Your task to perform on an android device: Open Android settings Image 0: 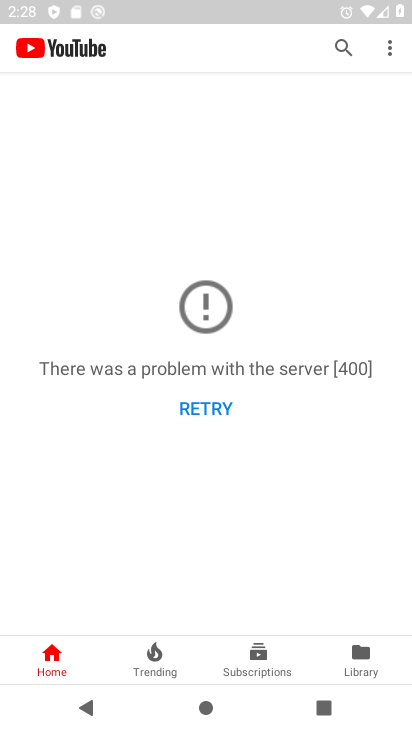
Step 0: press home button
Your task to perform on an android device: Open Android settings Image 1: 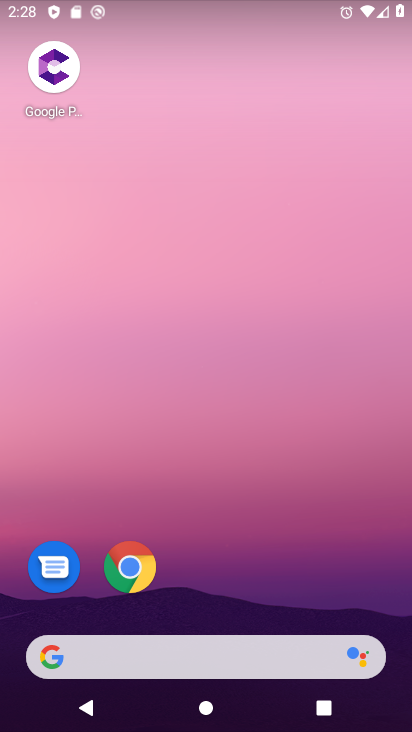
Step 1: drag from (284, 550) to (329, 6)
Your task to perform on an android device: Open Android settings Image 2: 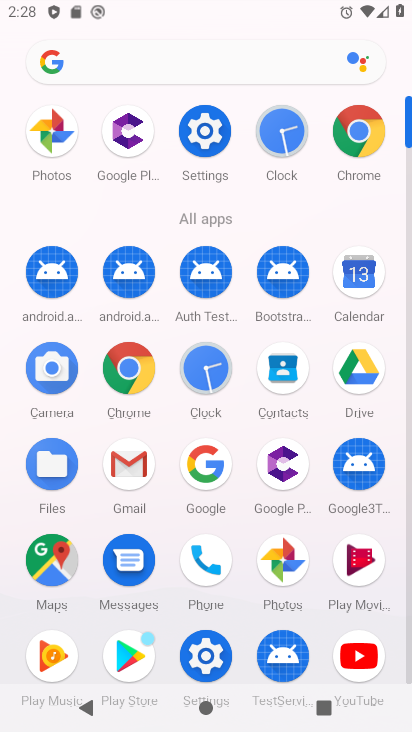
Step 2: click (204, 153)
Your task to perform on an android device: Open Android settings Image 3: 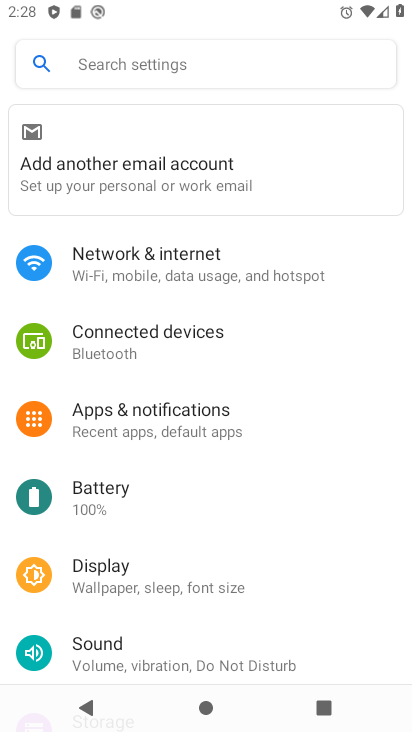
Step 3: drag from (183, 582) to (273, 157)
Your task to perform on an android device: Open Android settings Image 4: 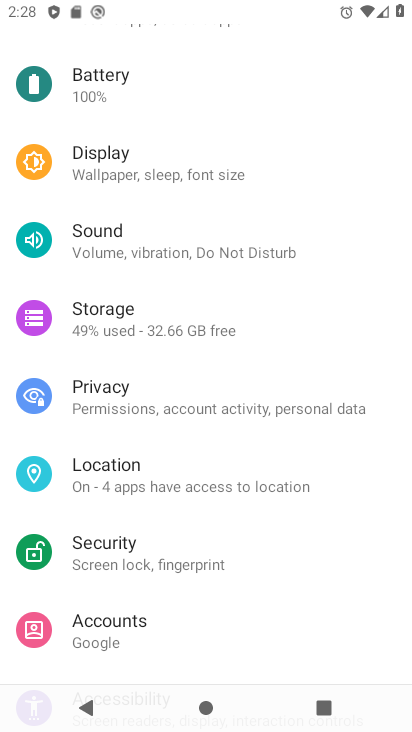
Step 4: drag from (208, 531) to (245, 310)
Your task to perform on an android device: Open Android settings Image 5: 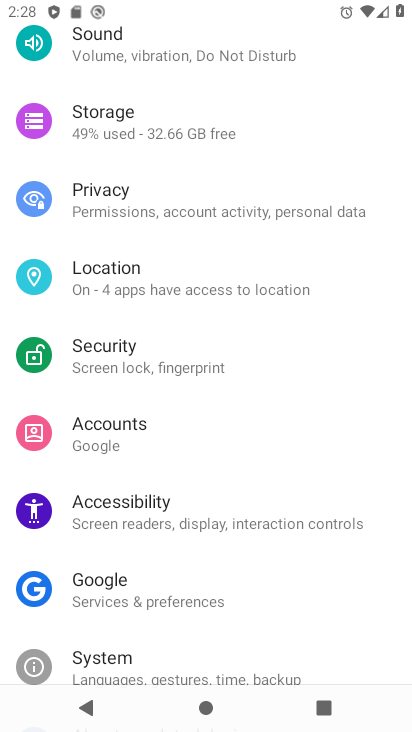
Step 5: drag from (176, 645) to (245, 238)
Your task to perform on an android device: Open Android settings Image 6: 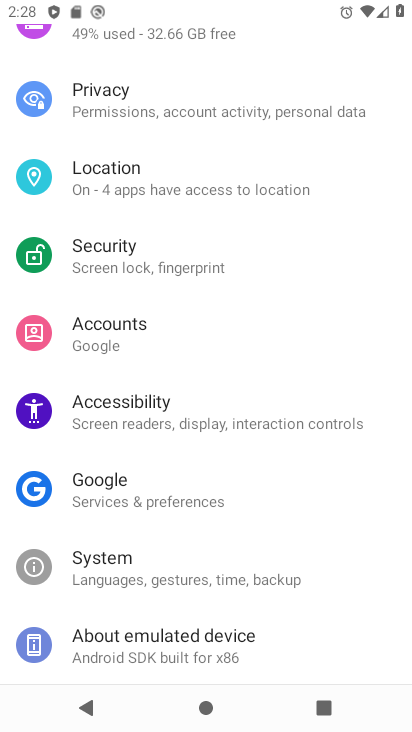
Step 6: click (153, 647)
Your task to perform on an android device: Open Android settings Image 7: 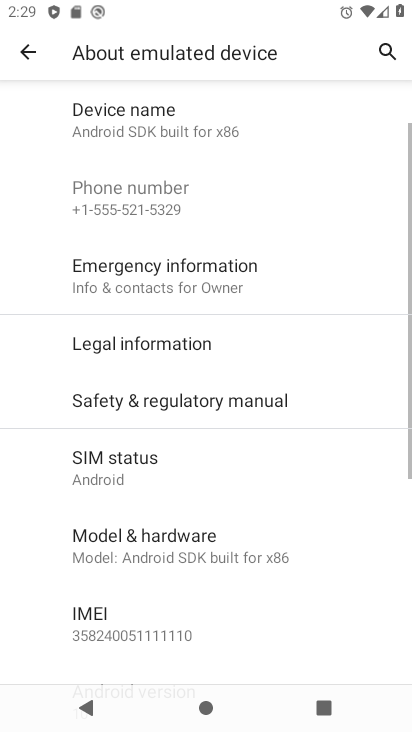
Step 7: drag from (172, 527) to (186, 345)
Your task to perform on an android device: Open Android settings Image 8: 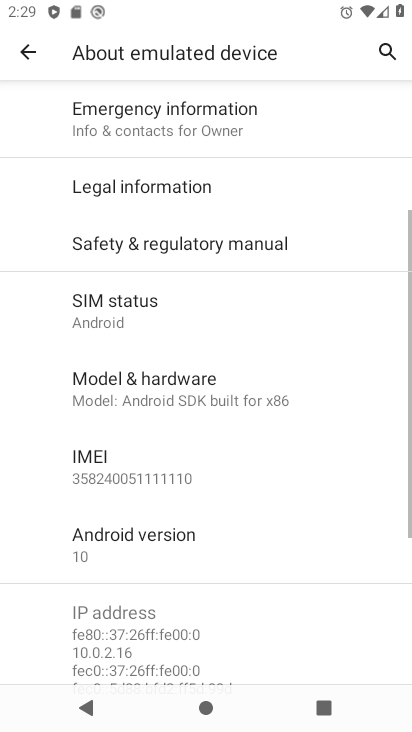
Step 8: click (144, 549)
Your task to perform on an android device: Open Android settings Image 9: 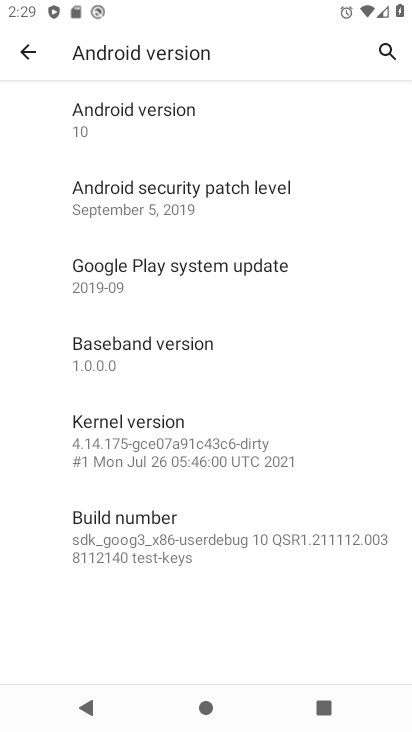
Step 9: task complete